Your task to perform on an android device: Go to Google maps Image 0: 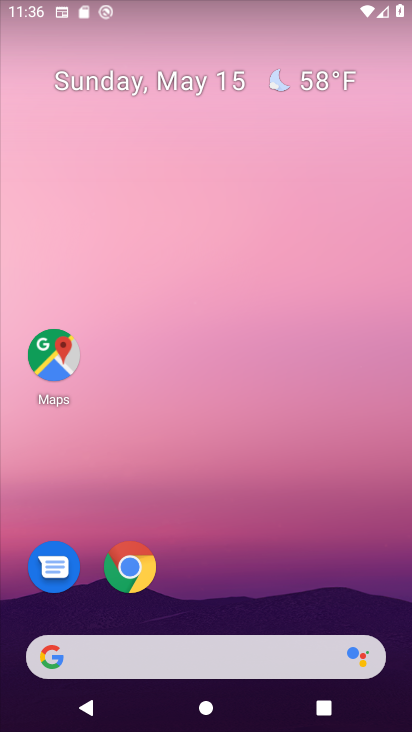
Step 0: click (73, 369)
Your task to perform on an android device: Go to Google maps Image 1: 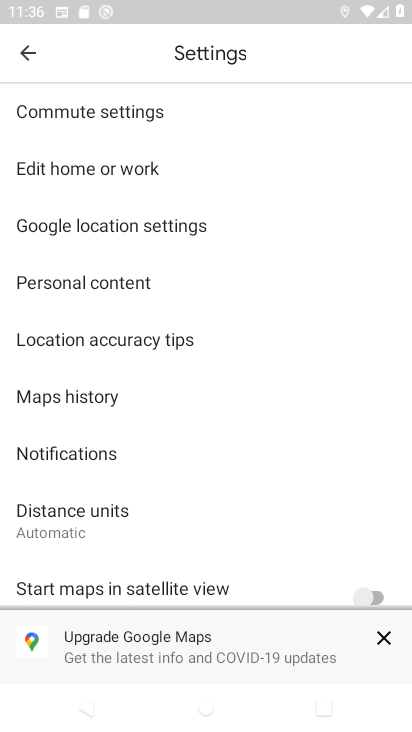
Step 1: click (33, 55)
Your task to perform on an android device: Go to Google maps Image 2: 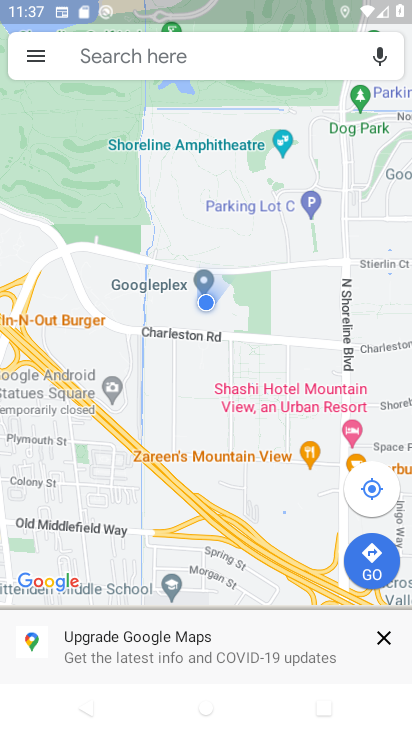
Step 2: task complete